Your task to perform on an android device: set the timer Image 0: 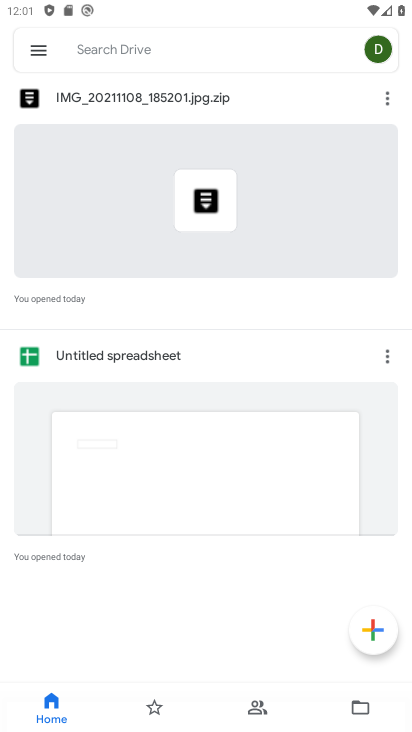
Step 0: press back button
Your task to perform on an android device: set the timer Image 1: 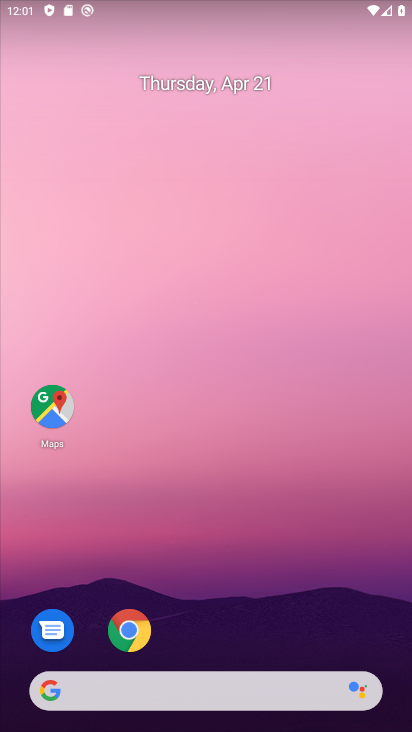
Step 1: drag from (288, 618) to (204, 119)
Your task to perform on an android device: set the timer Image 2: 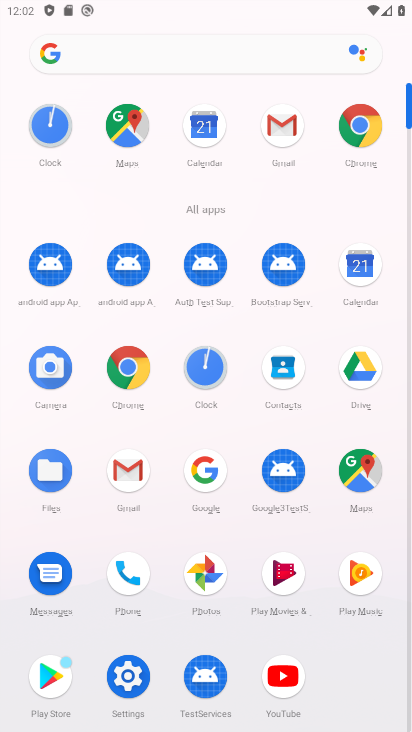
Step 2: click (212, 380)
Your task to perform on an android device: set the timer Image 3: 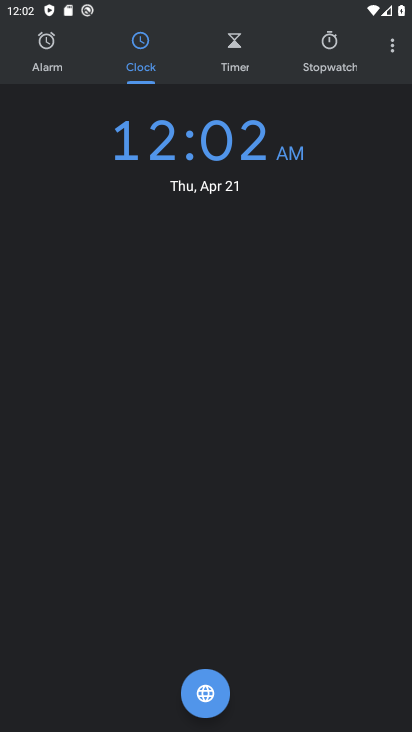
Step 3: click (226, 57)
Your task to perform on an android device: set the timer Image 4: 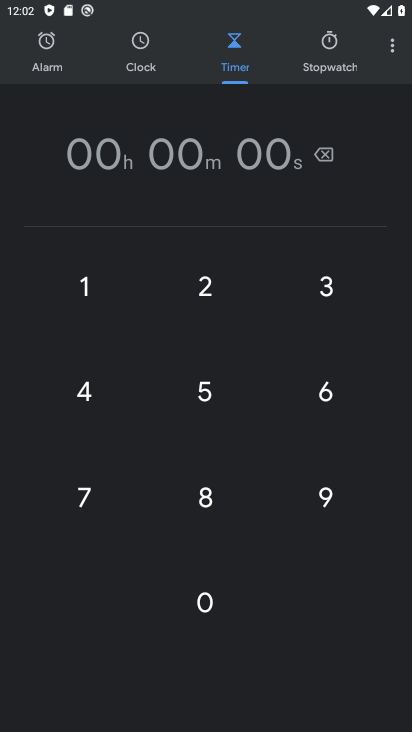
Step 4: type "100000"
Your task to perform on an android device: set the timer Image 5: 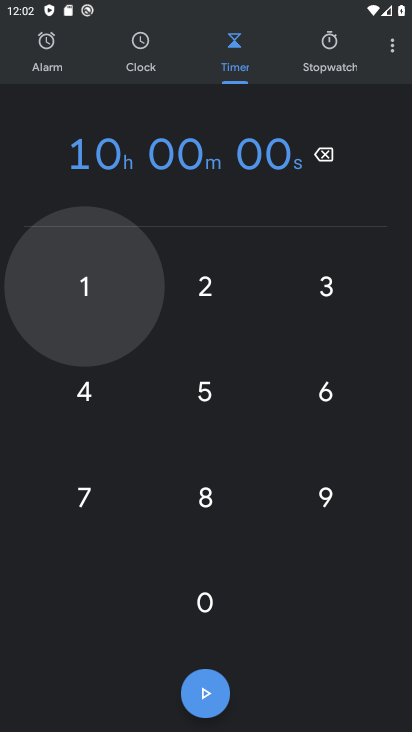
Step 5: click (196, 695)
Your task to perform on an android device: set the timer Image 6: 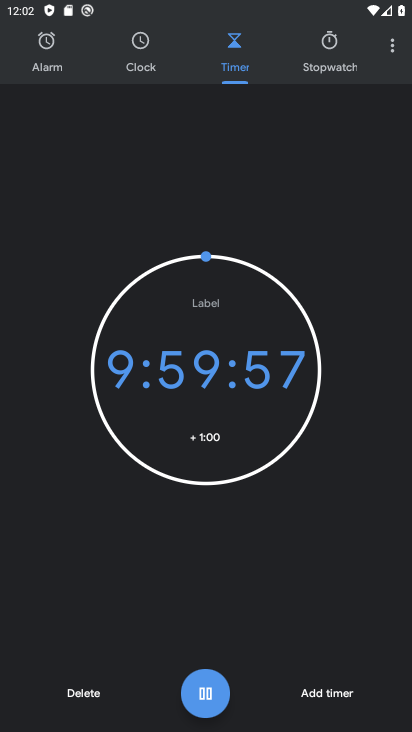
Step 6: task complete